Your task to perform on an android device: change the clock display to analog Image 0: 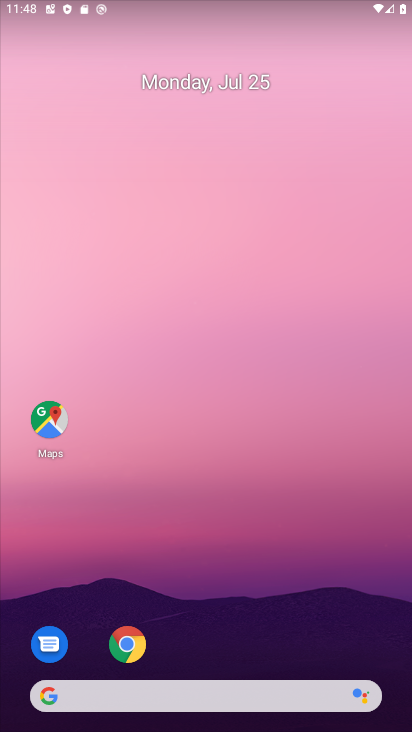
Step 0: drag from (221, 708) to (195, 208)
Your task to perform on an android device: change the clock display to analog Image 1: 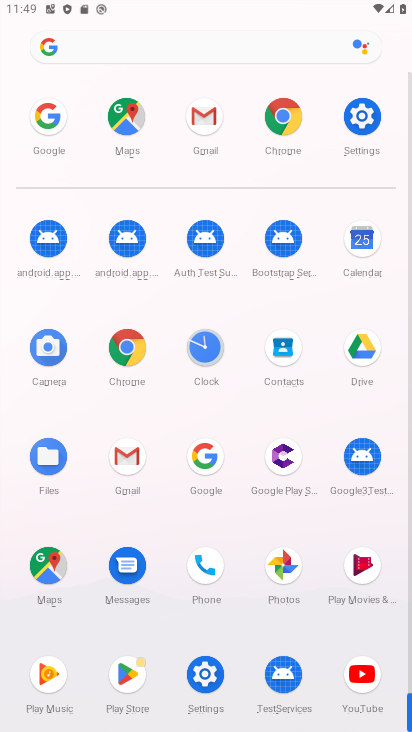
Step 1: click (200, 366)
Your task to perform on an android device: change the clock display to analog Image 2: 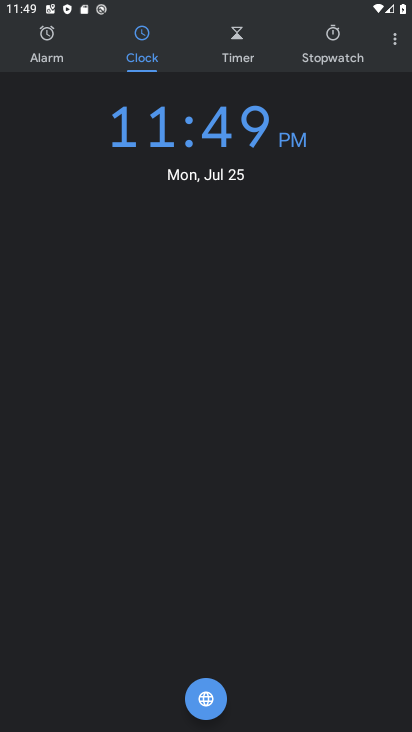
Step 2: click (394, 42)
Your task to perform on an android device: change the clock display to analog Image 3: 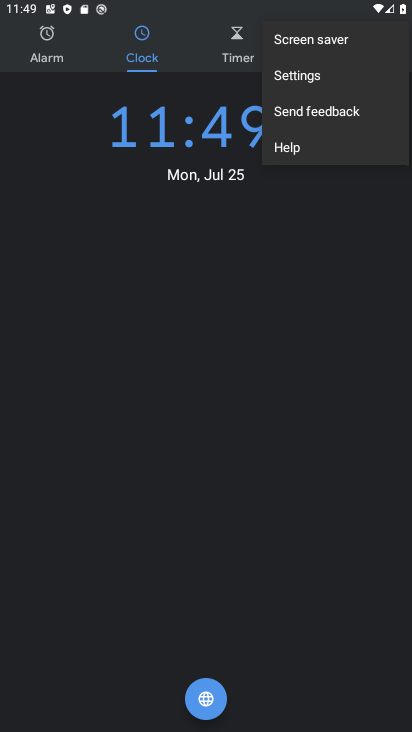
Step 3: click (305, 88)
Your task to perform on an android device: change the clock display to analog Image 4: 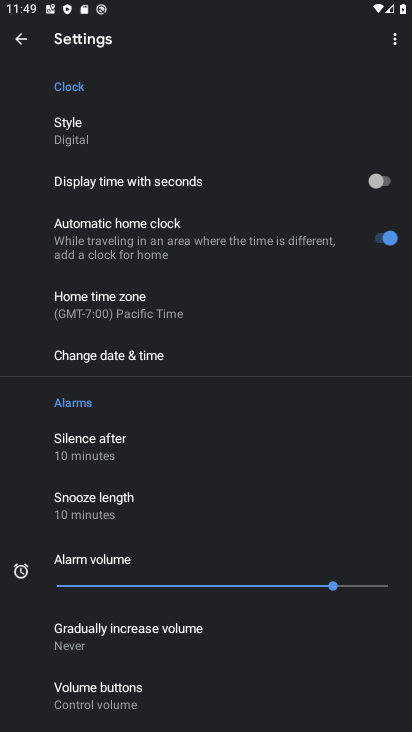
Step 4: click (181, 136)
Your task to perform on an android device: change the clock display to analog Image 5: 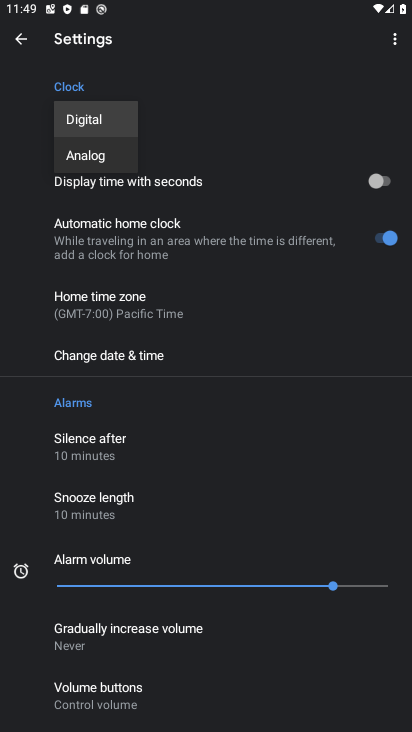
Step 5: click (117, 163)
Your task to perform on an android device: change the clock display to analog Image 6: 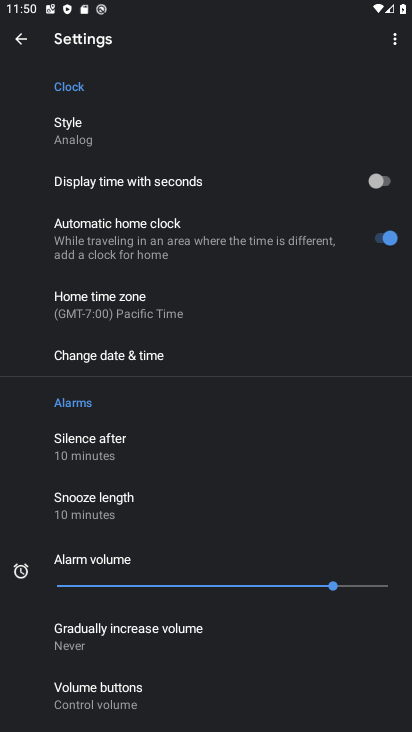
Step 6: task complete